Your task to perform on an android device: read, delete, or share a saved page in the chrome app Image 0: 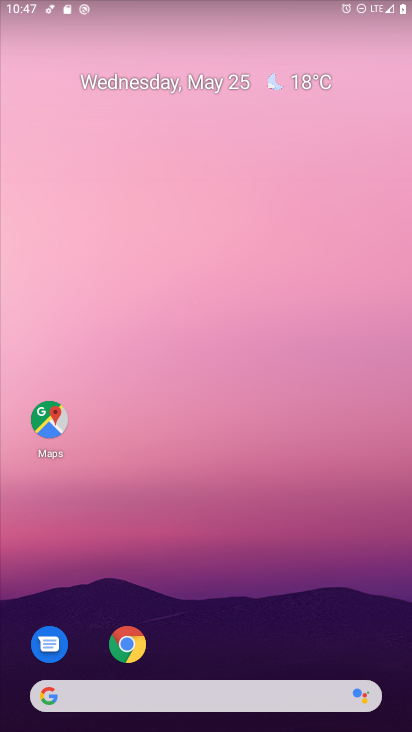
Step 0: click (123, 635)
Your task to perform on an android device: read, delete, or share a saved page in the chrome app Image 1: 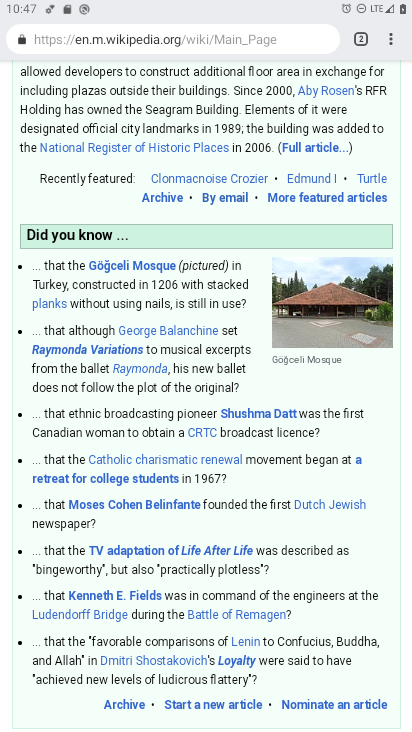
Step 1: click (357, 35)
Your task to perform on an android device: read, delete, or share a saved page in the chrome app Image 2: 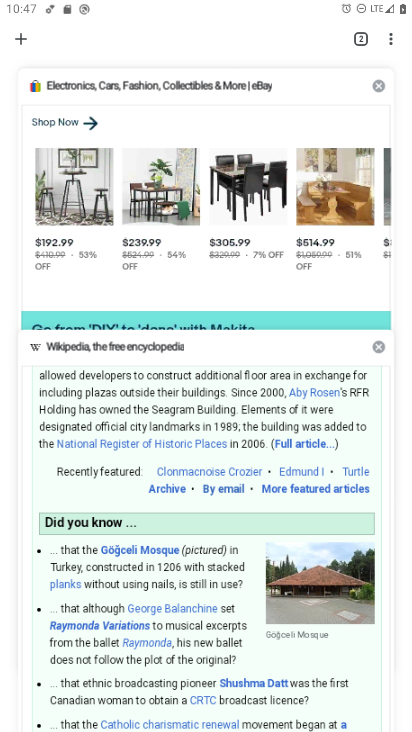
Step 2: click (377, 81)
Your task to perform on an android device: read, delete, or share a saved page in the chrome app Image 3: 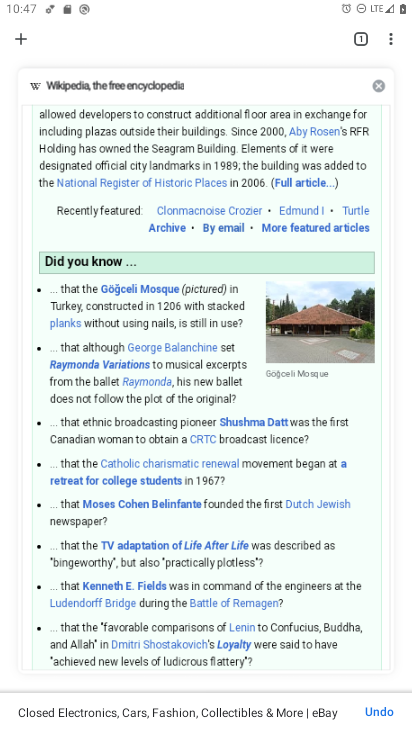
Step 3: click (377, 81)
Your task to perform on an android device: read, delete, or share a saved page in the chrome app Image 4: 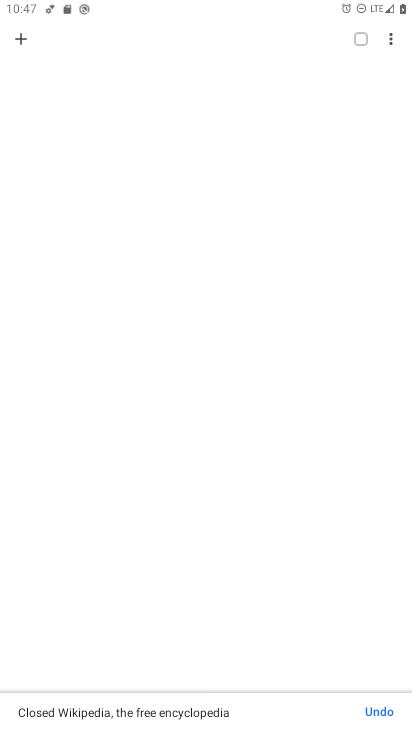
Step 4: click (20, 36)
Your task to perform on an android device: read, delete, or share a saved page in the chrome app Image 5: 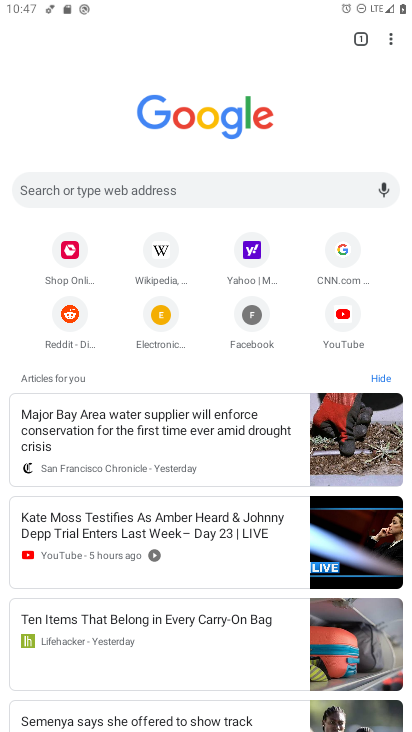
Step 5: click (387, 34)
Your task to perform on an android device: read, delete, or share a saved page in the chrome app Image 6: 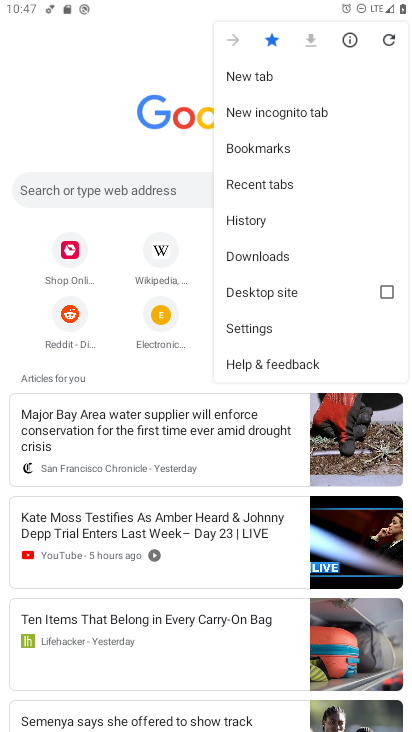
Step 6: click (303, 250)
Your task to perform on an android device: read, delete, or share a saved page in the chrome app Image 7: 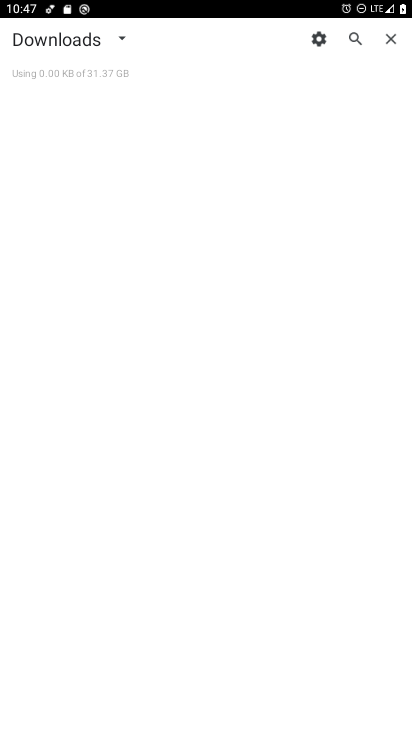
Step 7: task complete